Your task to perform on an android device: make emails show in primary in the gmail app Image 0: 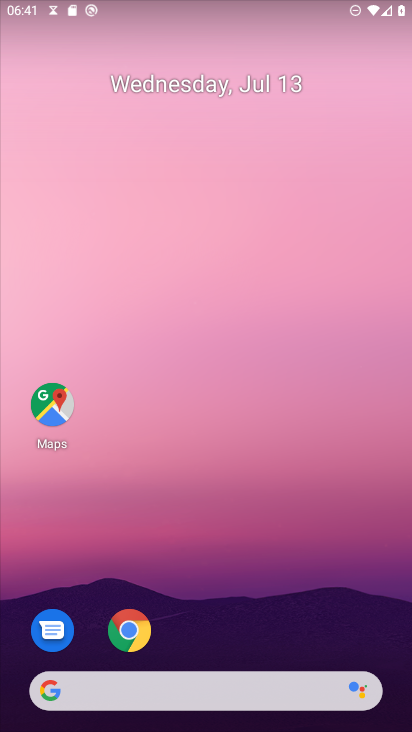
Step 0: drag from (279, 698) to (400, 623)
Your task to perform on an android device: make emails show in primary in the gmail app Image 1: 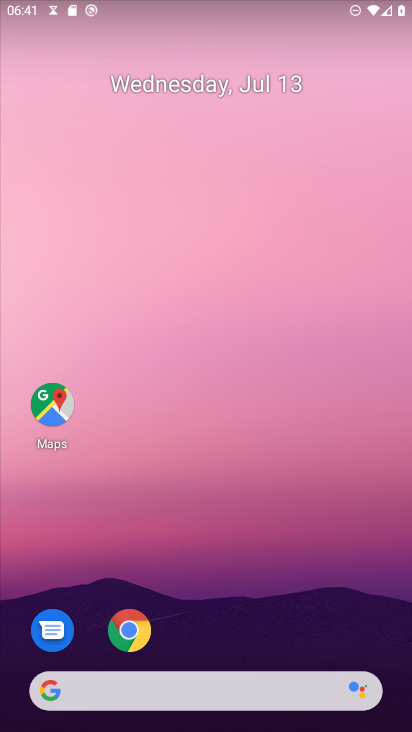
Step 1: drag from (224, 644) to (289, 4)
Your task to perform on an android device: make emails show in primary in the gmail app Image 2: 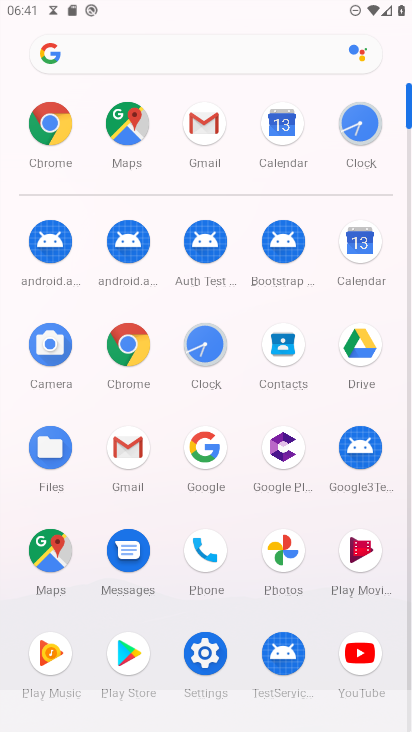
Step 2: click (143, 442)
Your task to perform on an android device: make emails show in primary in the gmail app Image 3: 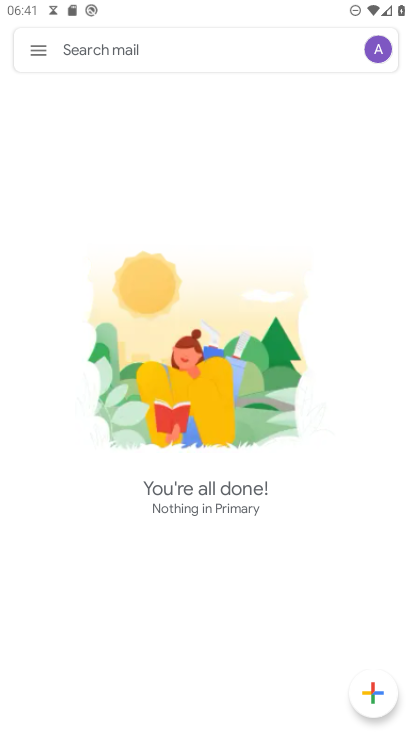
Step 3: click (40, 39)
Your task to perform on an android device: make emails show in primary in the gmail app Image 4: 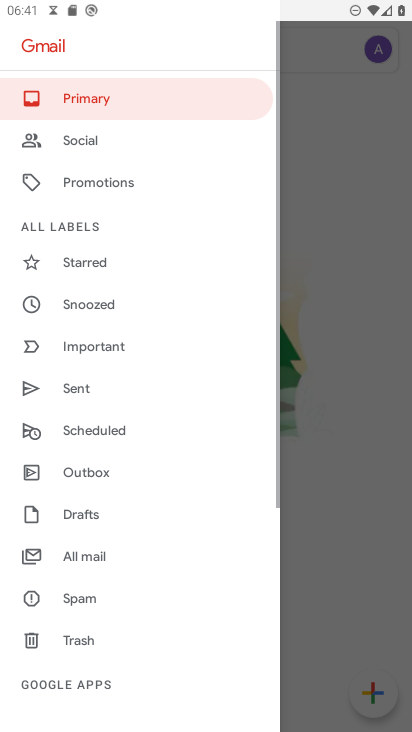
Step 4: click (86, 98)
Your task to perform on an android device: make emails show in primary in the gmail app Image 5: 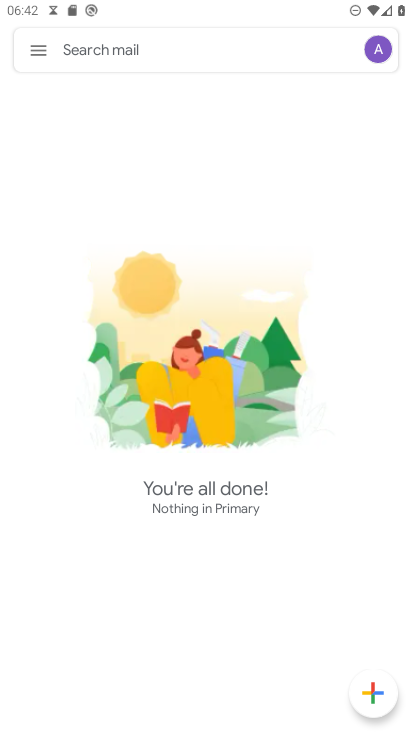
Step 5: task complete